Your task to perform on an android device: turn on data saver in the chrome app Image 0: 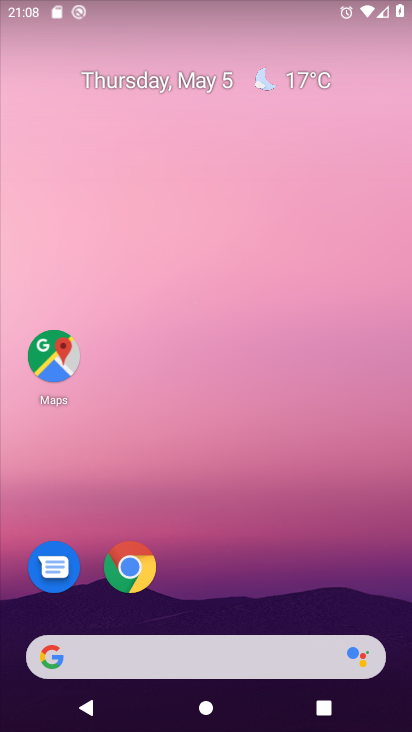
Step 0: drag from (247, 590) to (270, 82)
Your task to perform on an android device: turn on data saver in the chrome app Image 1: 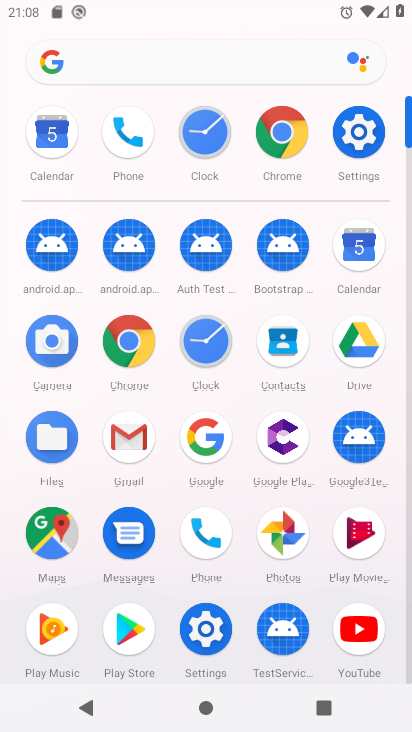
Step 1: click (282, 139)
Your task to perform on an android device: turn on data saver in the chrome app Image 2: 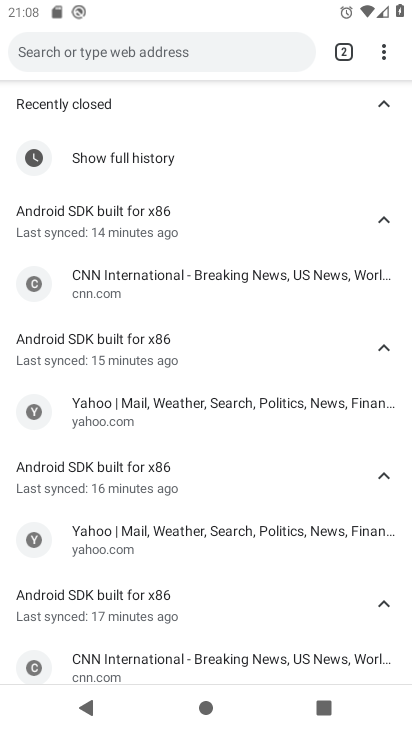
Step 2: drag from (378, 52) to (273, 438)
Your task to perform on an android device: turn on data saver in the chrome app Image 3: 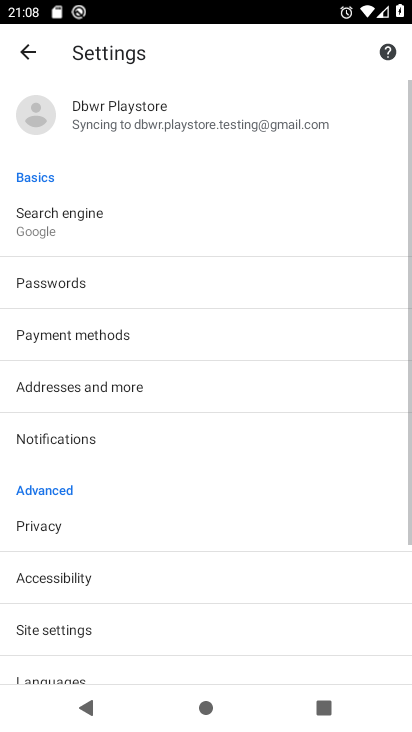
Step 3: drag from (218, 571) to (242, 209)
Your task to perform on an android device: turn on data saver in the chrome app Image 4: 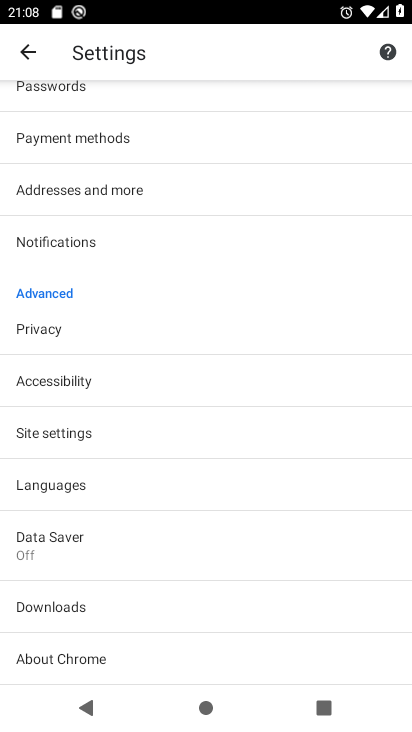
Step 4: click (174, 551)
Your task to perform on an android device: turn on data saver in the chrome app Image 5: 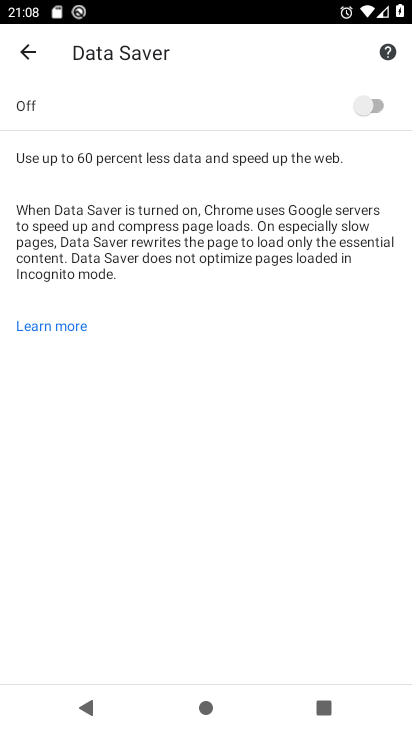
Step 5: click (377, 104)
Your task to perform on an android device: turn on data saver in the chrome app Image 6: 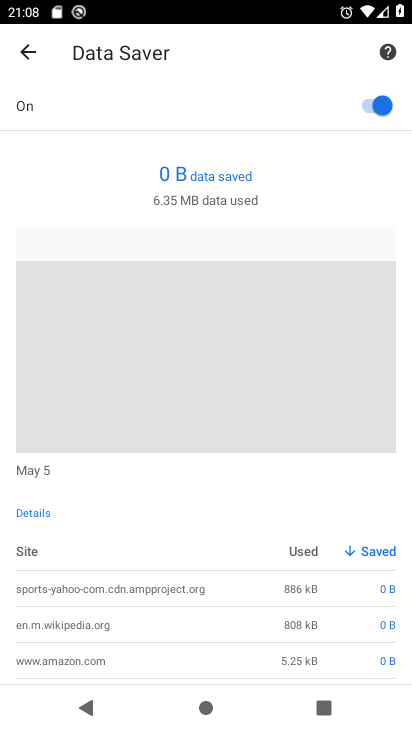
Step 6: task complete